Your task to perform on an android device: Search for Italian restaurants on Maps Image 0: 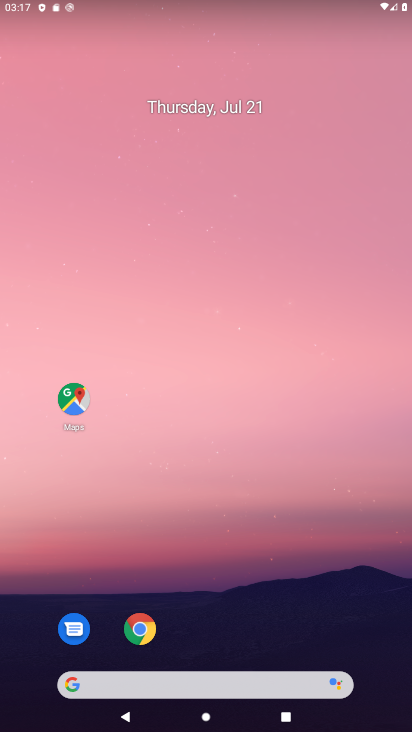
Step 0: press home button
Your task to perform on an android device: Search for Italian restaurants on Maps Image 1: 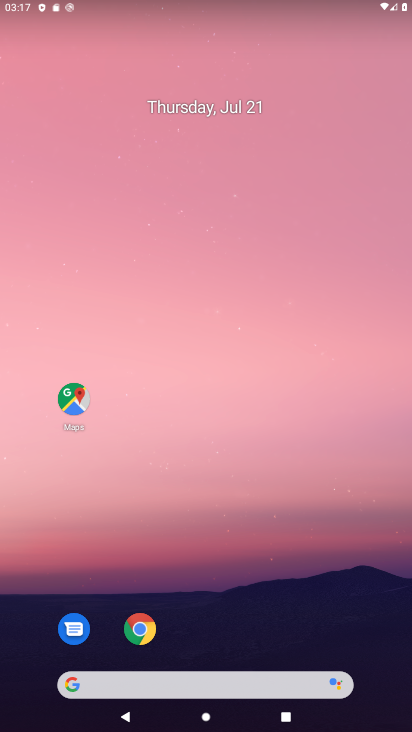
Step 1: click (61, 405)
Your task to perform on an android device: Search for Italian restaurants on Maps Image 2: 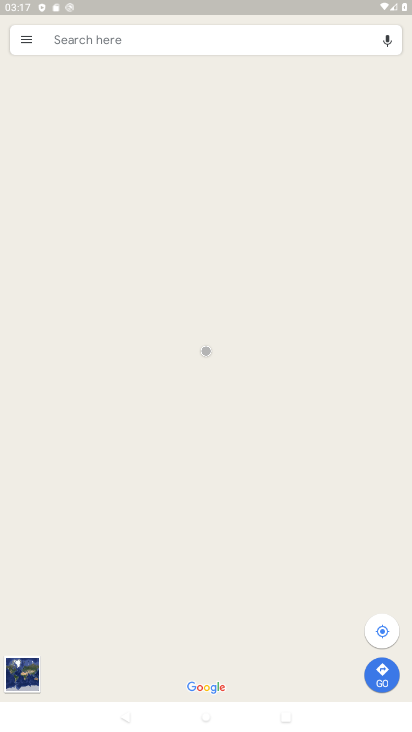
Step 2: click (179, 48)
Your task to perform on an android device: Search for Italian restaurants on Maps Image 3: 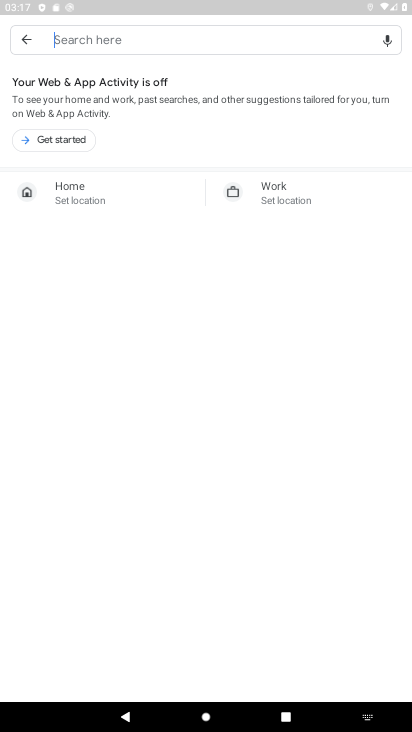
Step 3: type " Italian restaurants"
Your task to perform on an android device: Search for Italian restaurants on Maps Image 4: 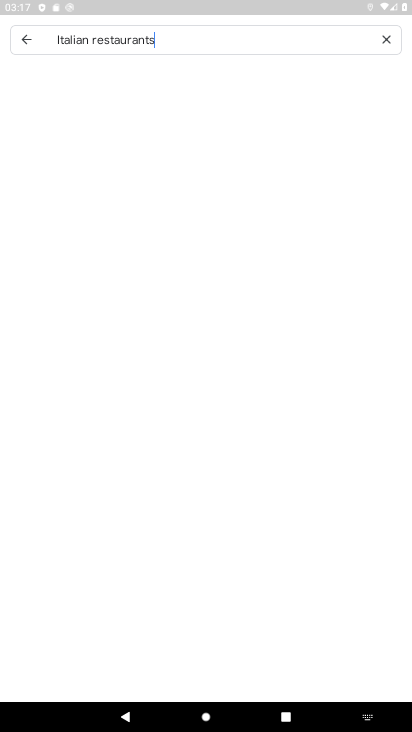
Step 4: type ""
Your task to perform on an android device: Search for Italian restaurants on Maps Image 5: 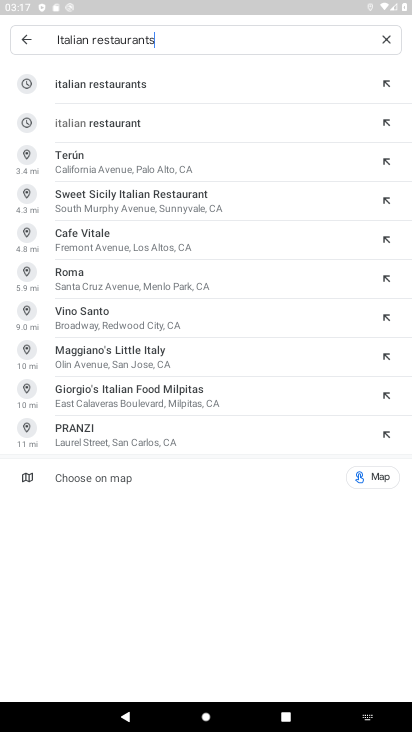
Step 5: click (56, 73)
Your task to perform on an android device: Search for Italian restaurants on Maps Image 6: 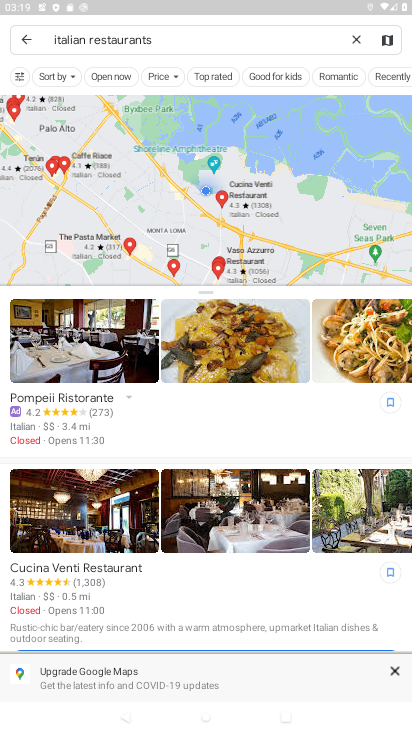
Step 6: task complete